Your task to perform on an android device: change notifications settings Image 0: 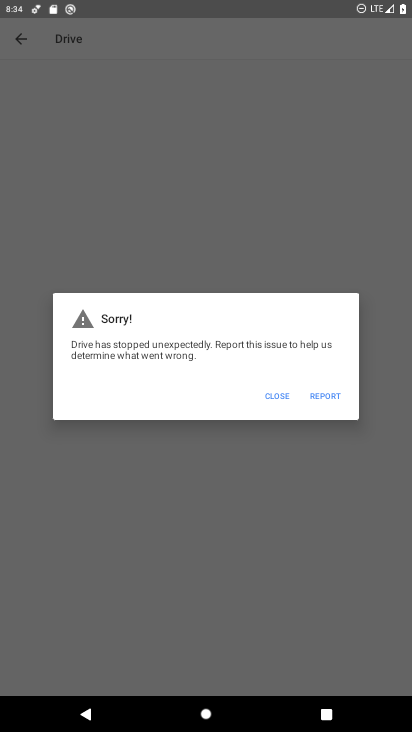
Step 0: press home button
Your task to perform on an android device: change notifications settings Image 1: 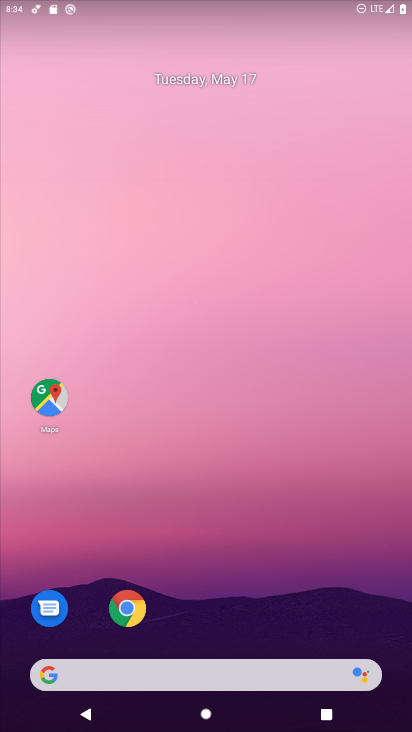
Step 1: drag from (180, 606) to (268, 35)
Your task to perform on an android device: change notifications settings Image 2: 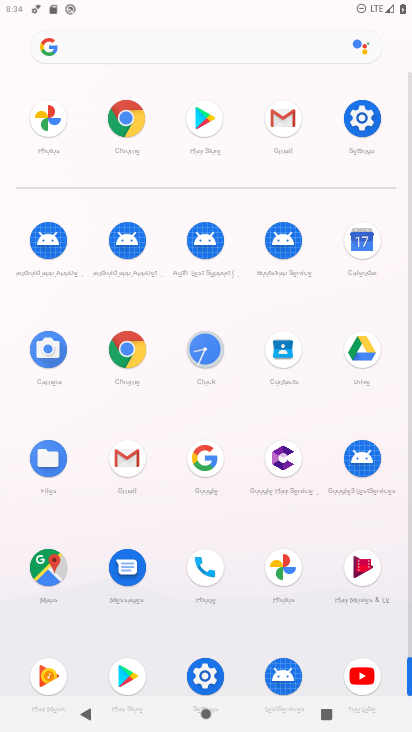
Step 2: click (366, 138)
Your task to perform on an android device: change notifications settings Image 3: 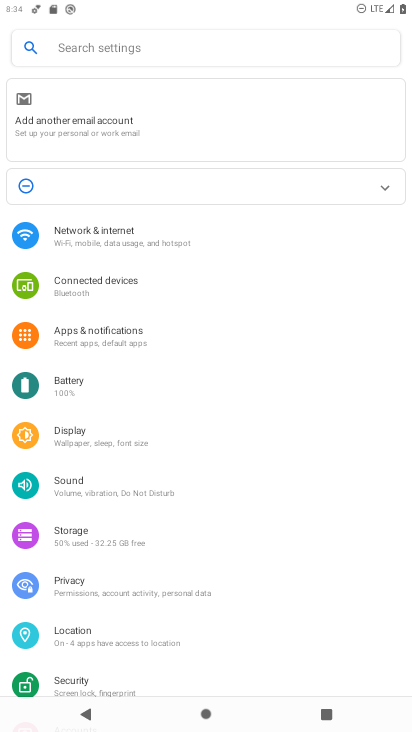
Step 3: click (132, 340)
Your task to perform on an android device: change notifications settings Image 4: 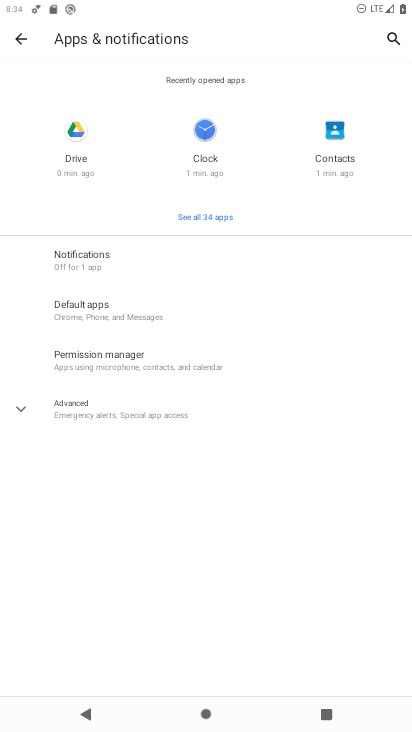
Step 4: click (95, 263)
Your task to perform on an android device: change notifications settings Image 5: 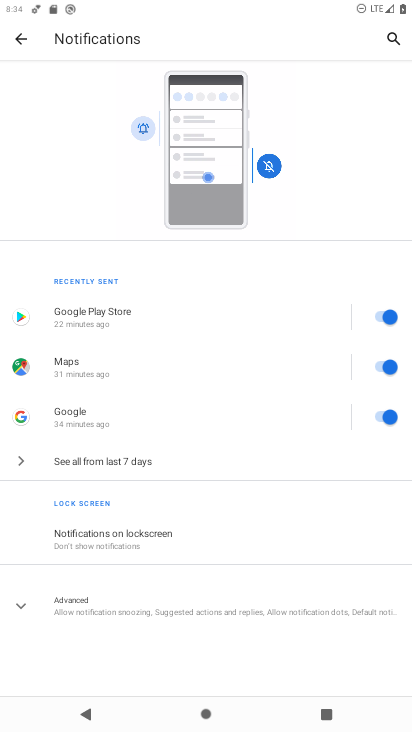
Step 5: click (367, 315)
Your task to perform on an android device: change notifications settings Image 6: 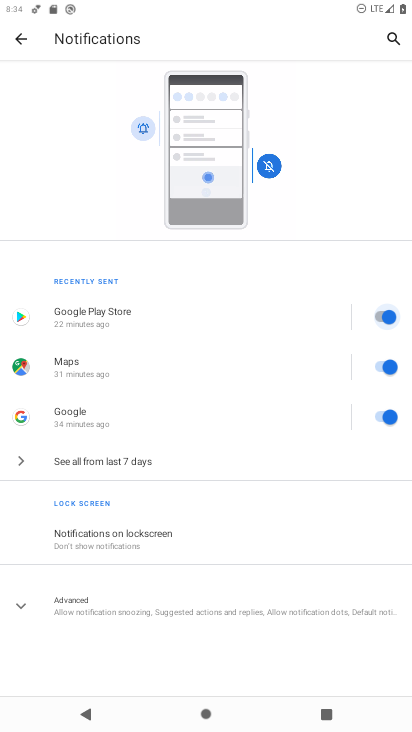
Step 6: click (367, 367)
Your task to perform on an android device: change notifications settings Image 7: 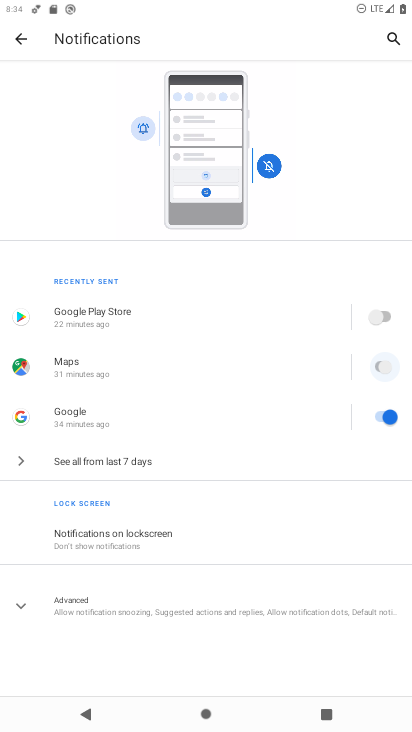
Step 7: click (379, 406)
Your task to perform on an android device: change notifications settings Image 8: 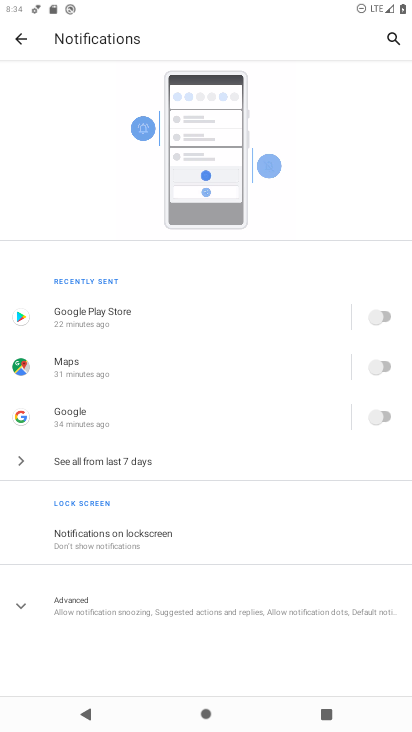
Step 8: click (118, 460)
Your task to perform on an android device: change notifications settings Image 9: 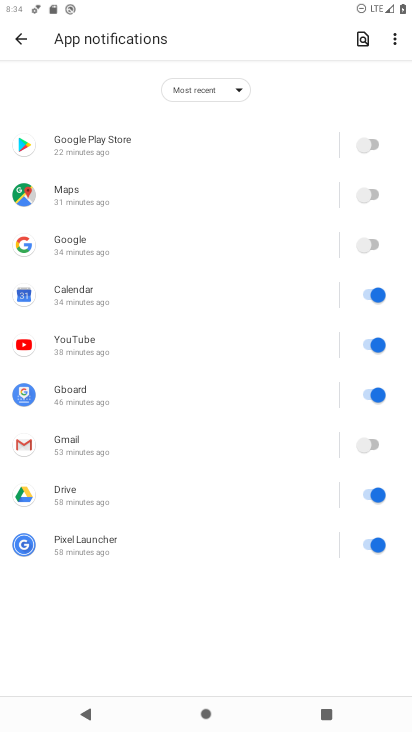
Step 9: click (363, 288)
Your task to perform on an android device: change notifications settings Image 10: 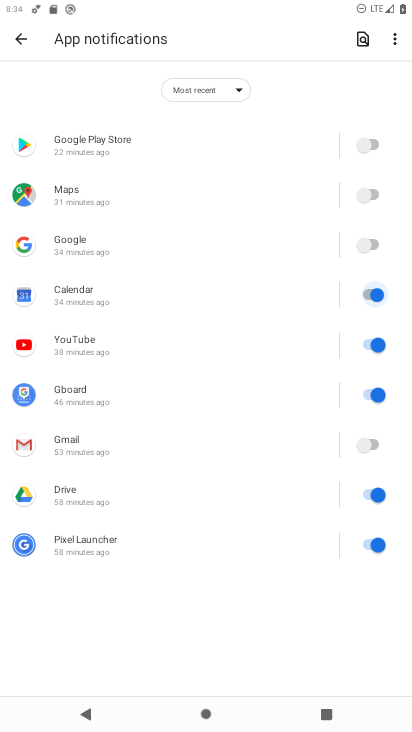
Step 10: click (369, 351)
Your task to perform on an android device: change notifications settings Image 11: 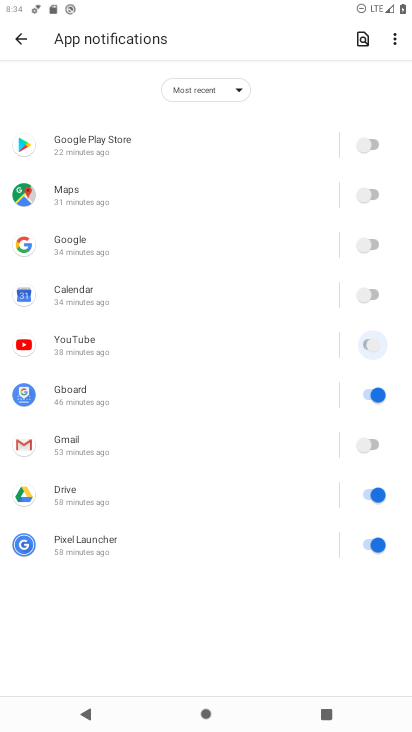
Step 11: click (363, 388)
Your task to perform on an android device: change notifications settings Image 12: 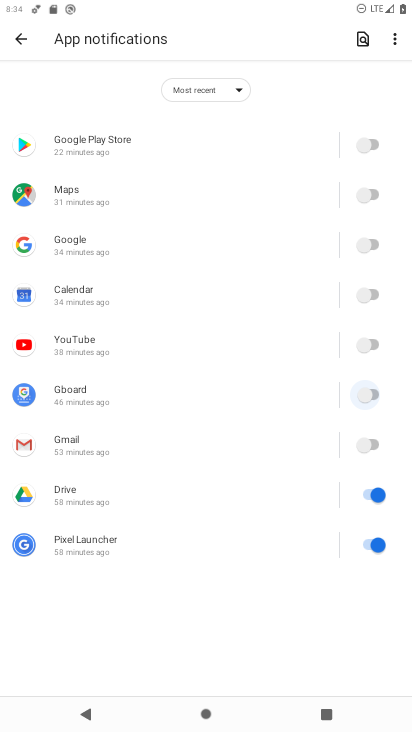
Step 12: click (357, 482)
Your task to perform on an android device: change notifications settings Image 13: 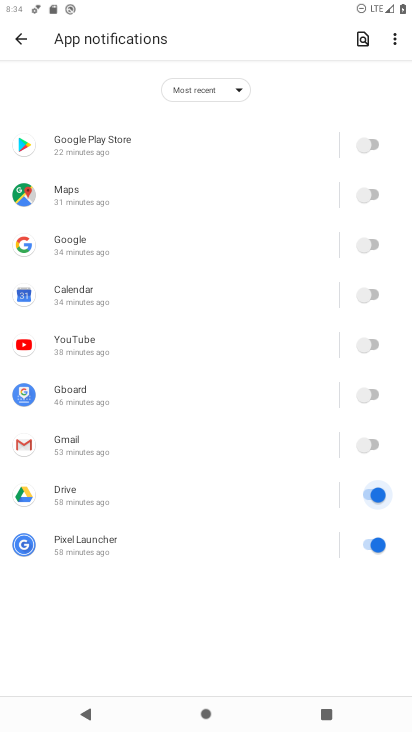
Step 13: click (365, 529)
Your task to perform on an android device: change notifications settings Image 14: 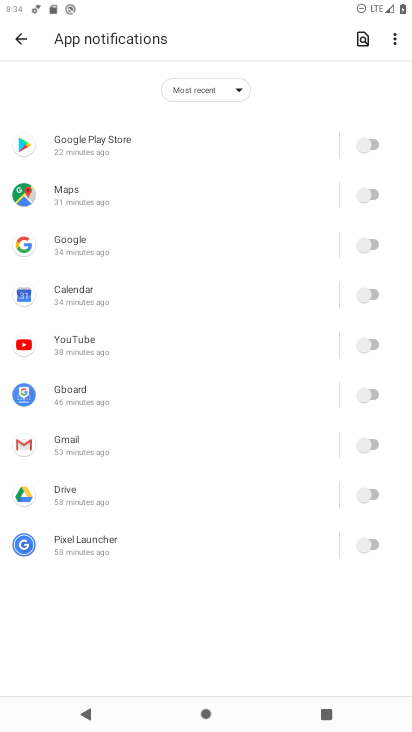
Step 14: task complete